Your task to perform on an android device: Go to CNN.com Image 0: 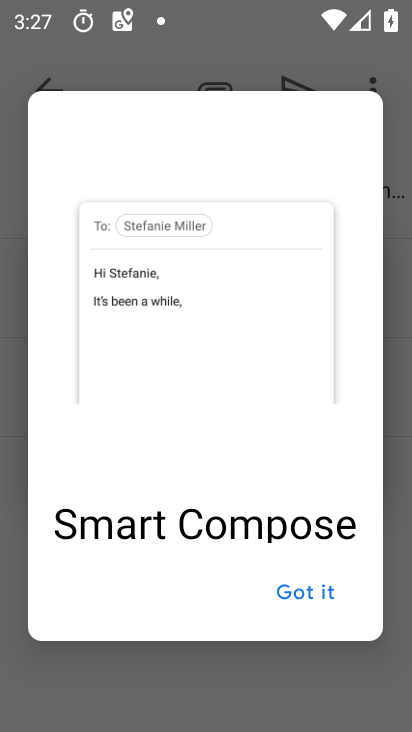
Step 0: press home button
Your task to perform on an android device: Go to CNN.com Image 1: 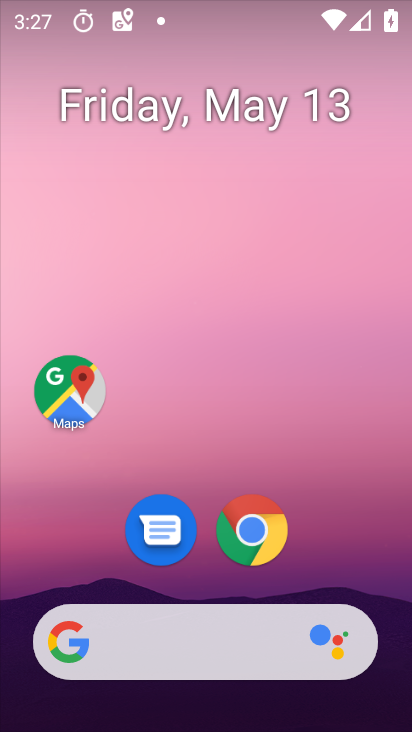
Step 1: click (241, 541)
Your task to perform on an android device: Go to CNN.com Image 2: 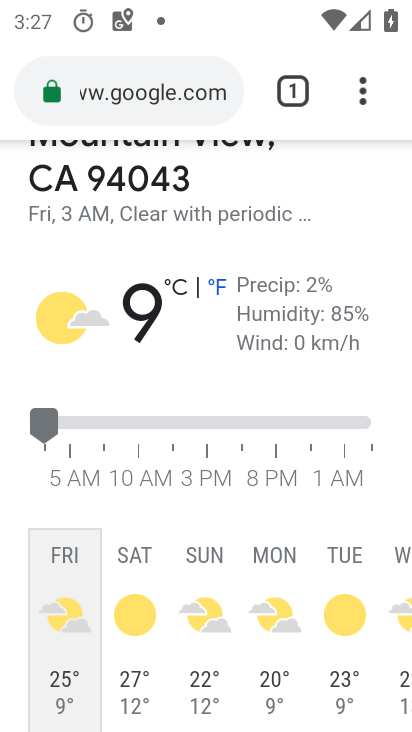
Step 2: click (189, 108)
Your task to perform on an android device: Go to CNN.com Image 3: 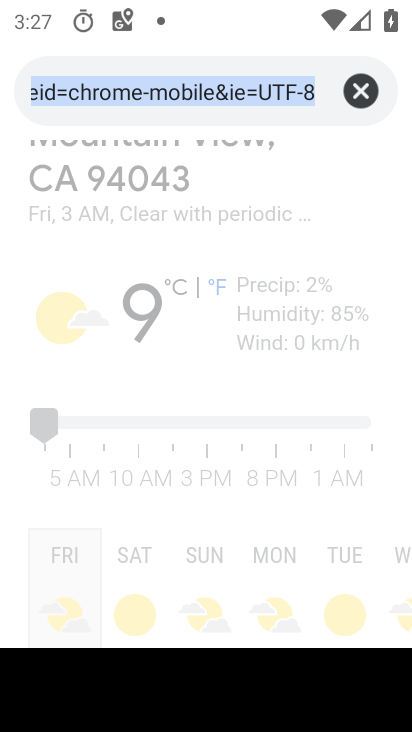
Step 3: type "cnn.com"
Your task to perform on an android device: Go to CNN.com Image 4: 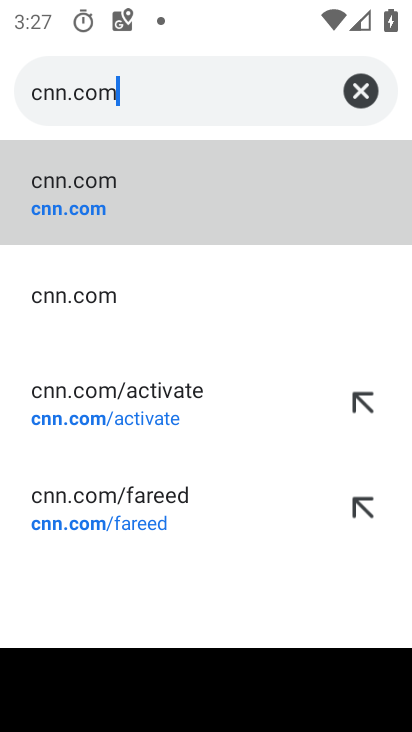
Step 4: click (42, 195)
Your task to perform on an android device: Go to CNN.com Image 5: 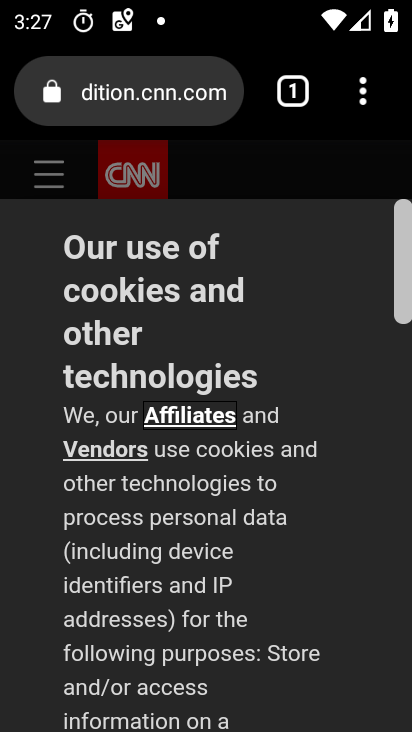
Step 5: task complete